Your task to perform on an android device: Open privacy settings Image 0: 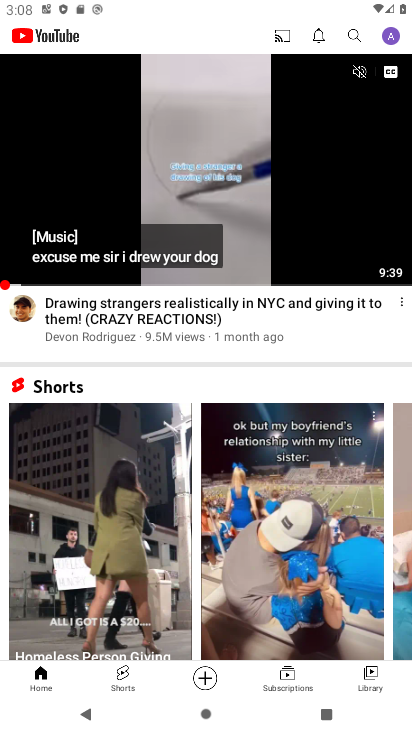
Step 0: press home button
Your task to perform on an android device: Open privacy settings Image 1: 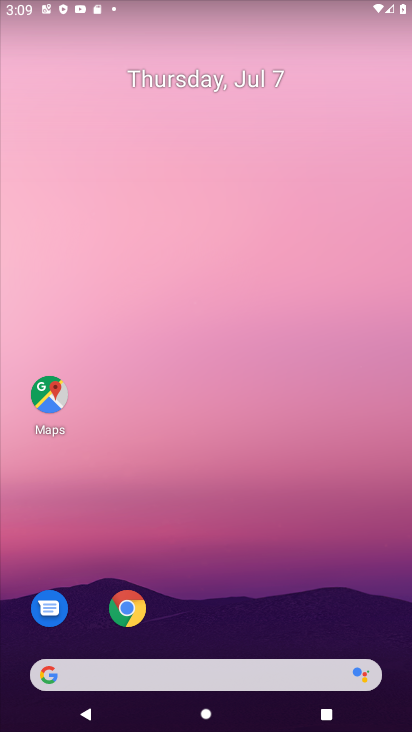
Step 1: drag from (384, 626) to (357, 181)
Your task to perform on an android device: Open privacy settings Image 2: 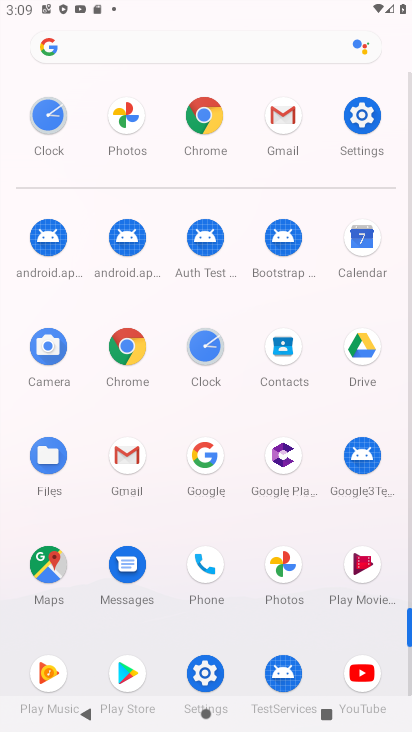
Step 2: click (205, 673)
Your task to perform on an android device: Open privacy settings Image 3: 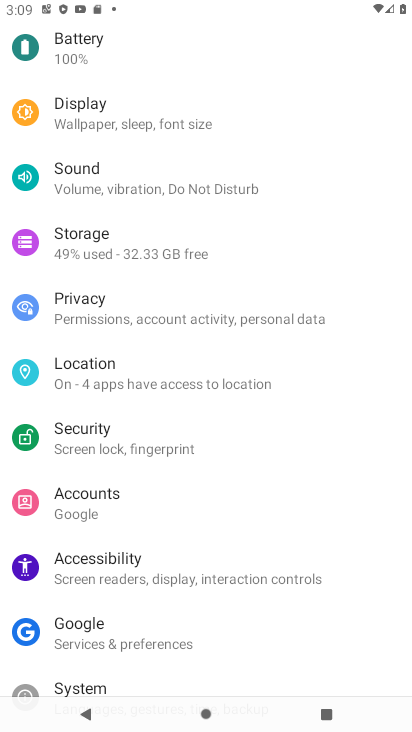
Step 3: click (79, 306)
Your task to perform on an android device: Open privacy settings Image 4: 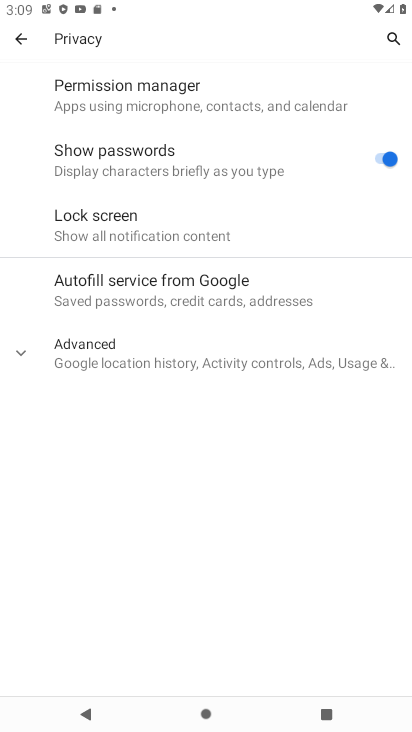
Step 4: click (16, 352)
Your task to perform on an android device: Open privacy settings Image 5: 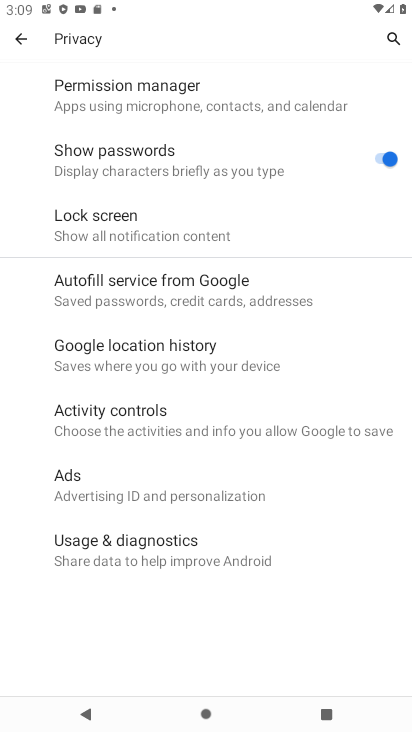
Step 5: task complete